Your task to perform on an android device: Go to Android settings Image 0: 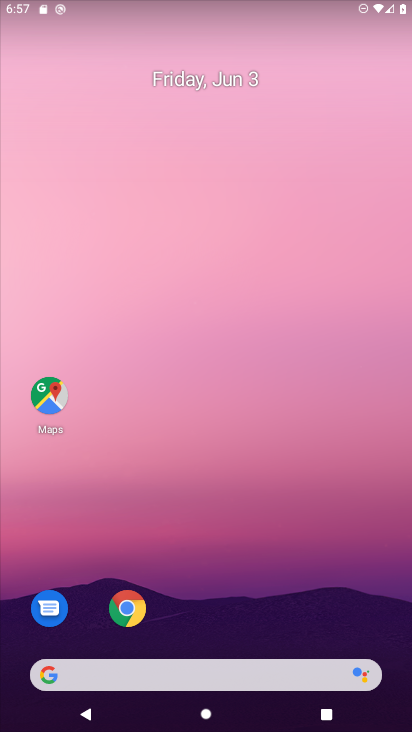
Step 0: drag from (246, 610) to (284, 292)
Your task to perform on an android device: Go to Android settings Image 1: 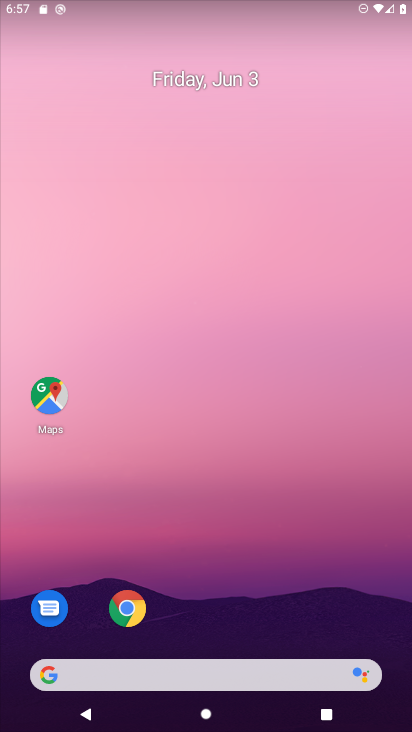
Step 1: drag from (238, 615) to (281, 95)
Your task to perform on an android device: Go to Android settings Image 2: 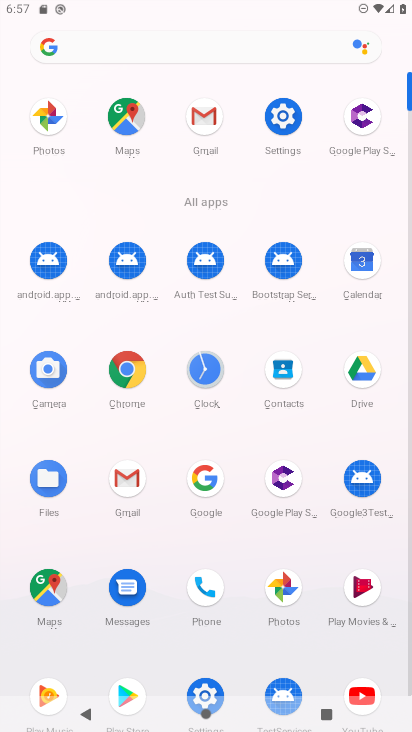
Step 2: click (276, 114)
Your task to perform on an android device: Go to Android settings Image 3: 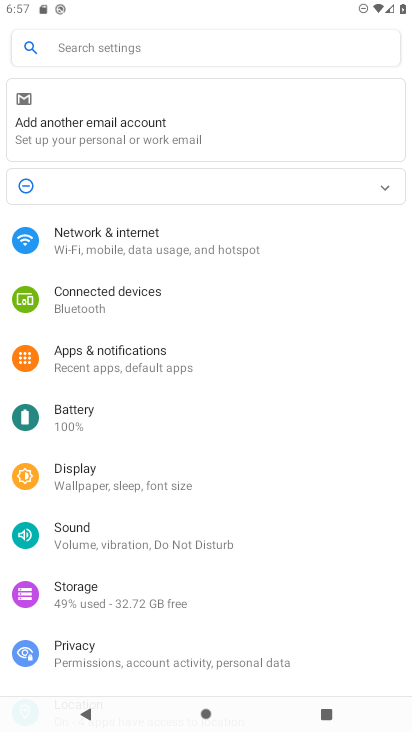
Step 3: task complete